Your task to perform on an android device: Go to internet settings Image 0: 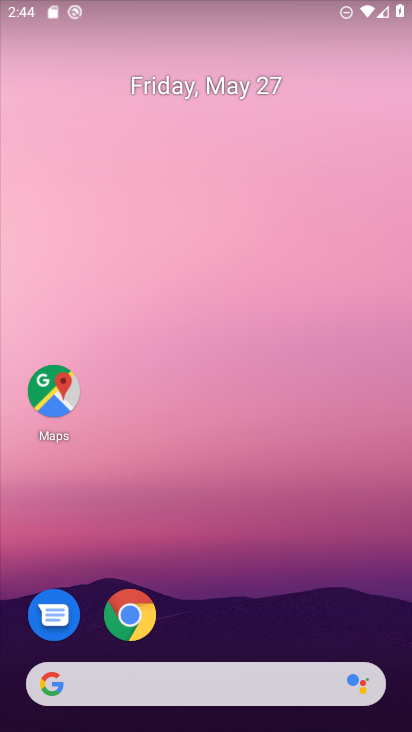
Step 0: drag from (230, 378) to (176, 86)
Your task to perform on an android device: Go to internet settings Image 1: 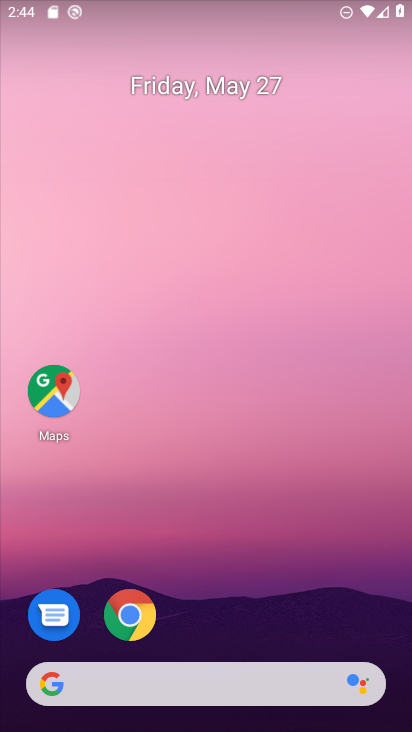
Step 1: drag from (289, 581) to (143, 12)
Your task to perform on an android device: Go to internet settings Image 2: 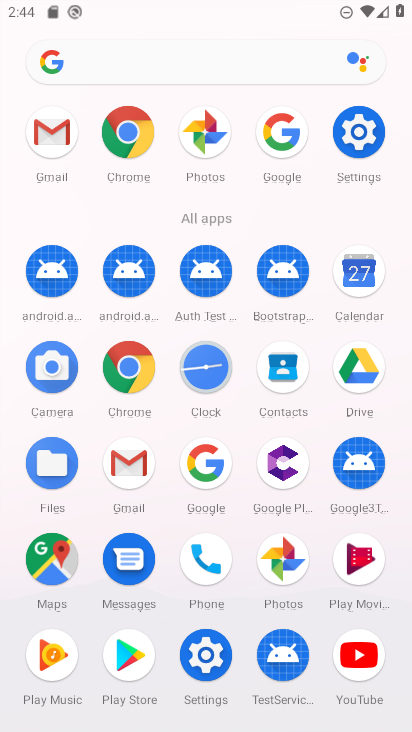
Step 2: click (368, 146)
Your task to perform on an android device: Go to internet settings Image 3: 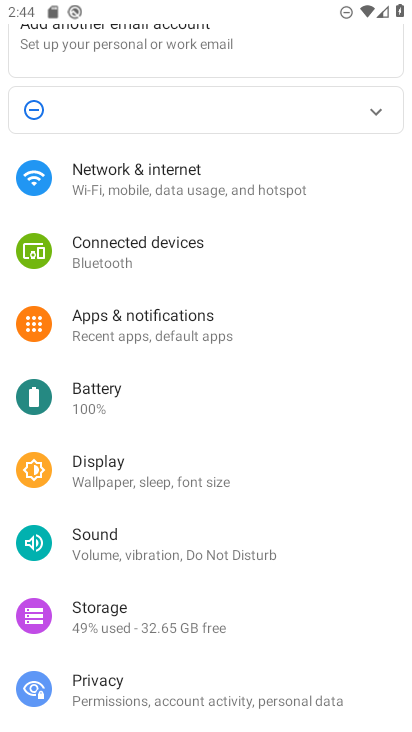
Step 3: click (176, 176)
Your task to perform on an android device: Go to internet settings Image 4: 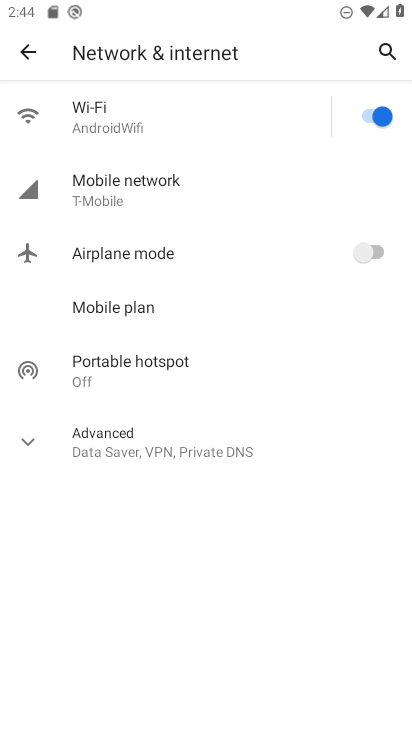
Step 4: task complete